Your task to perform on an android device: check out phone information Image 0: 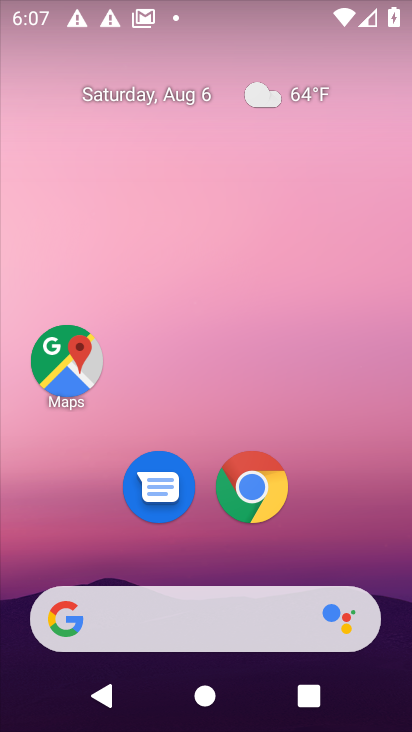
Step 0: drag from (184, 561) to (270, 76)
Your task to perform on an android device: check out phone information Image 1: 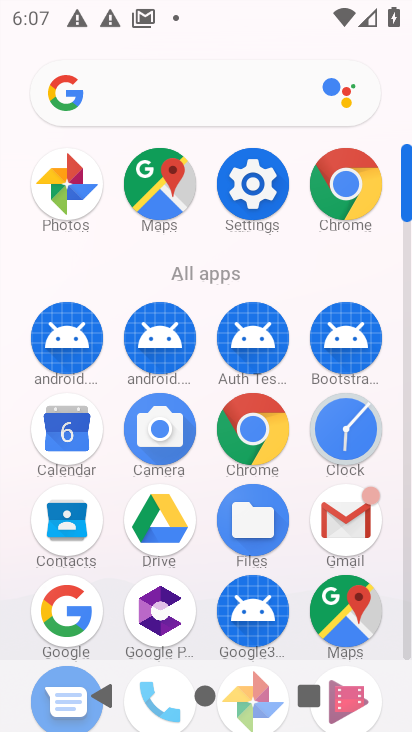
Step 1: click (246, 193)
Your task to perform on an android device: check out phone information Image 2: 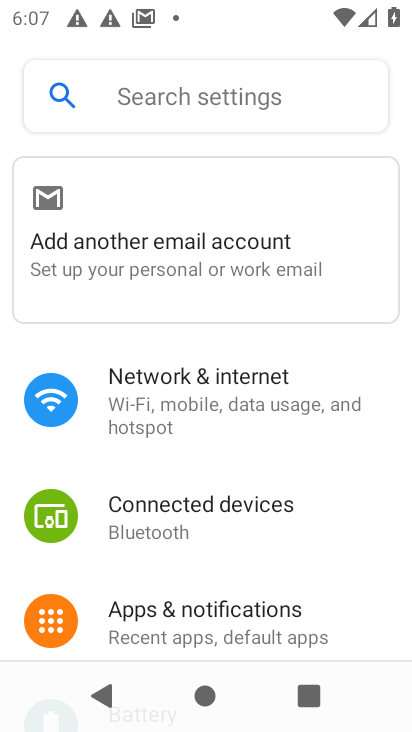
Step 2: drag from (173, 593) to (274, 120)
Your task to perform on an android device: check out phone information Image 3: 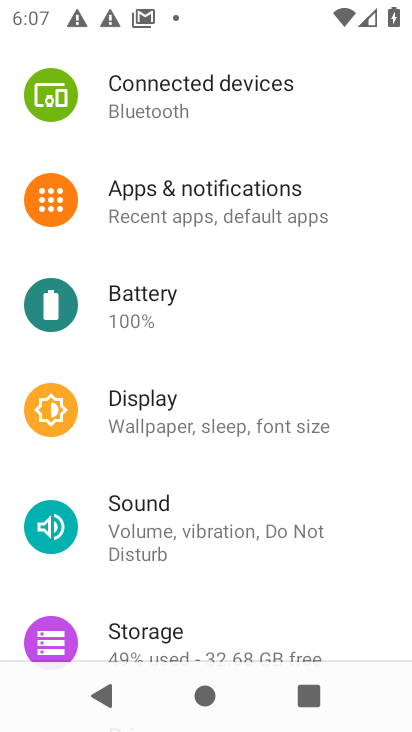
Step 3: drag from (185, 557) to (297, 5)
Your task to perform on an android device: check out phone information Image 4: 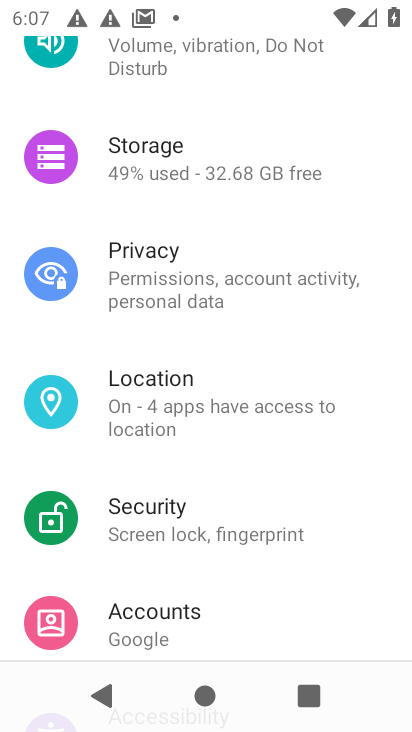
Step 4: drag from (164, 601) to (315, 84)
Your task to perform on an android device: check out phone information Image 5: 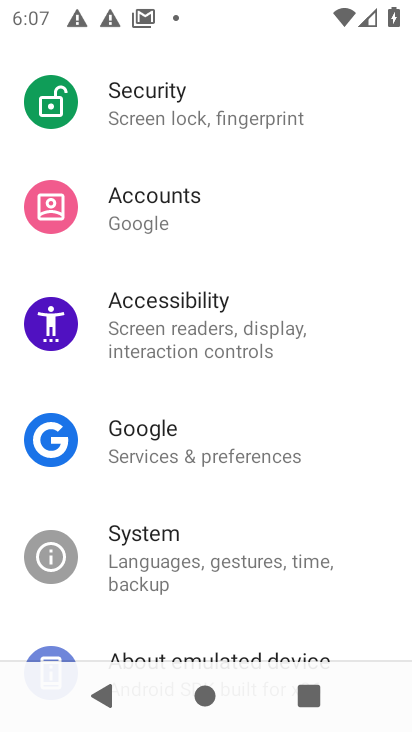
Step 5: drag from (145, 595) to (283, 29)
Your task to perform on an android device: check out phone information Image 6: 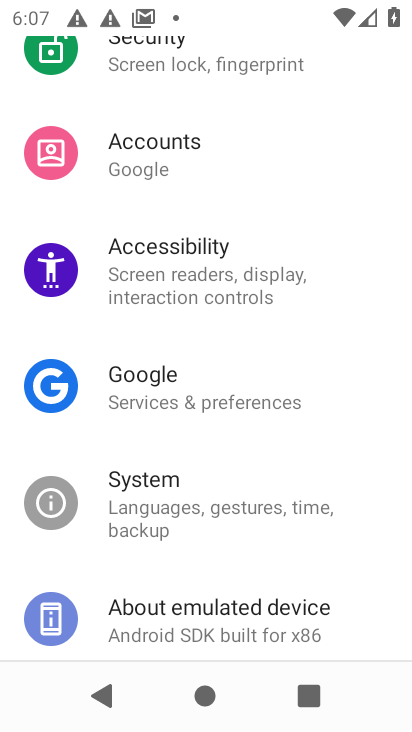
Step 6: click (163, 623)
Your task to perform on an android device: check out phone information Image 7: 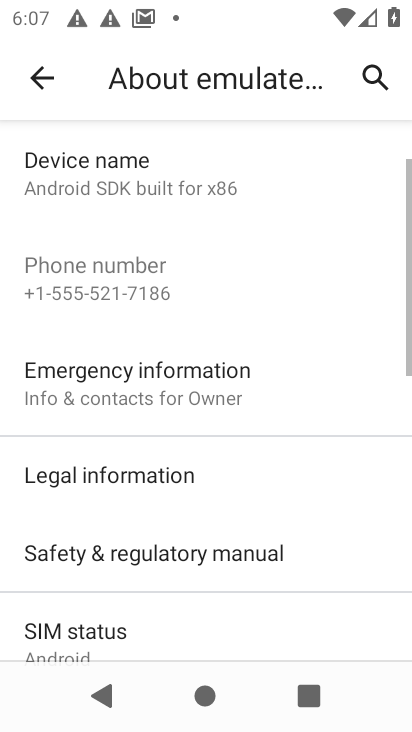
Step 7: task complete